Your task to perform on an android device: open the mobile data screen to see how much data has been used Image 0: 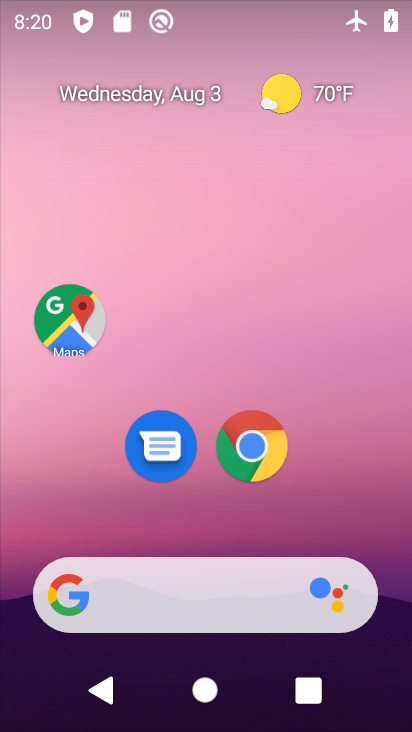
Step 0: drag from (383, 632) to (326, 143)
Your task to perform on an android device: open the mobile data screen to see how much data has been used Image 1: 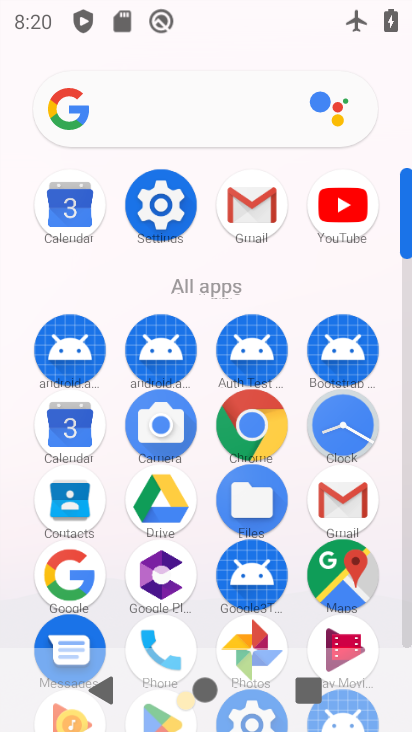
Step 1: click (138, 198)
Your task to perform on an android device: open the mobile data screen to see how much data has been used Image 2: 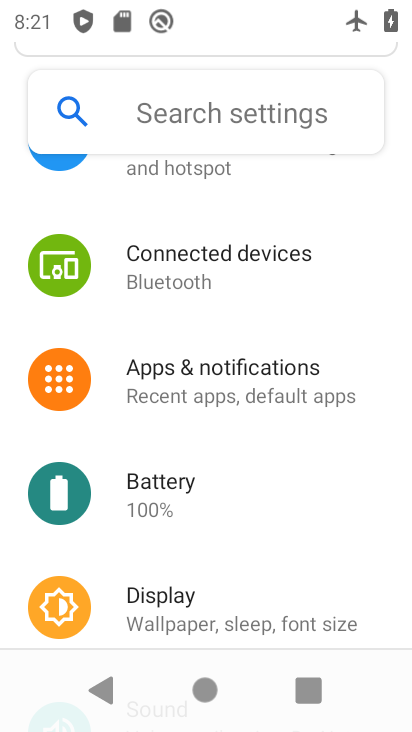
Step 2: drag from (226, 280) to (246, 654)
Your task to perform on an android device: open the mobile data screen to see how much data has been used Image 3: 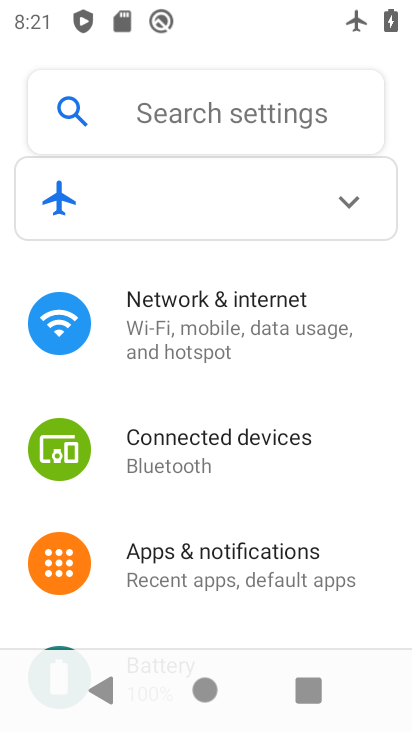
Step 3: click (213, 324)
Your task to perform on an android device: open the mobile data screen to see how much data has been used Image 4: 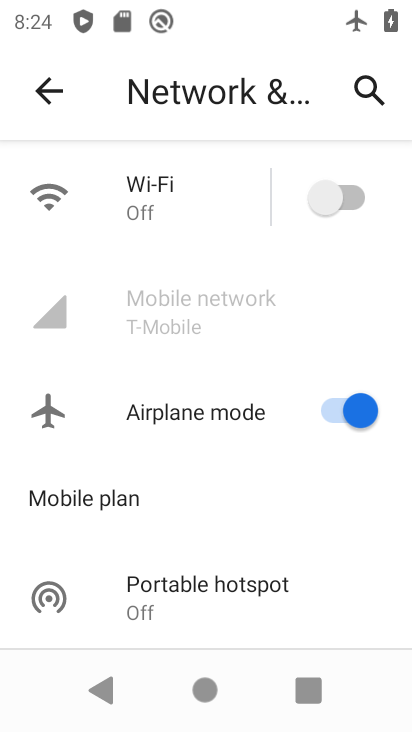
Step 4: task complete